Your task to perform on an android device: Find coffee shops on Maps Image 0: 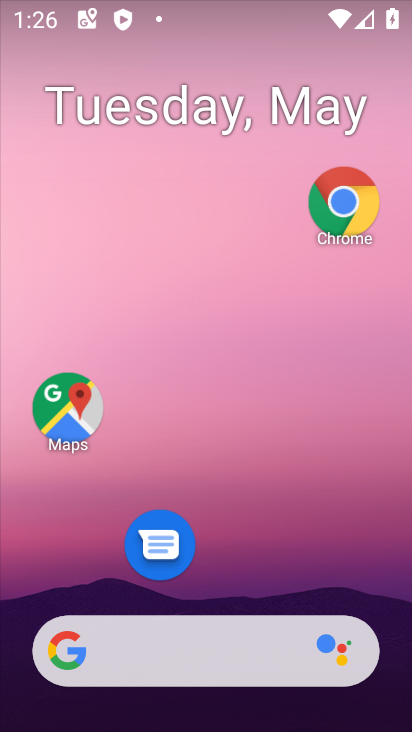
Step 0: click (85, 399)
Your task to perform on an android device: Find coffee shops on Maps Image 1: 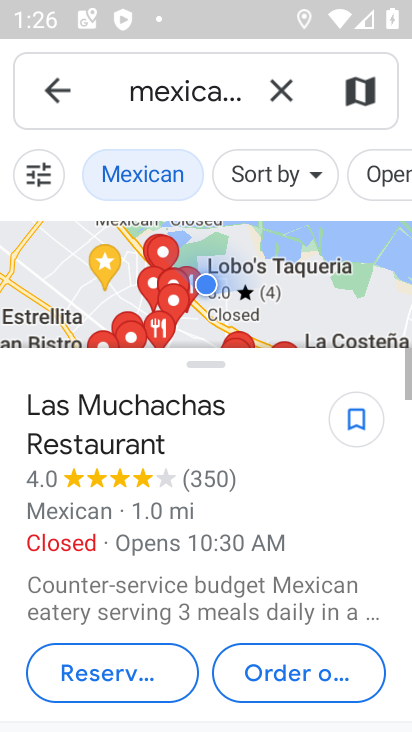
Step 1: click (274, 80)
Your task to perform on an android device: Find coffee shops on Maps Image 2: 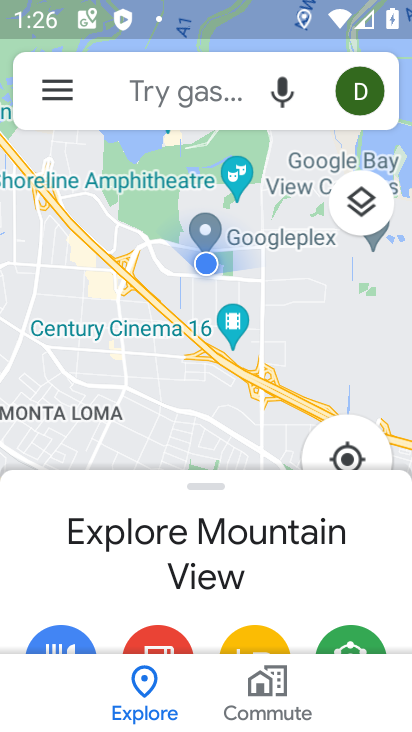
Step 2: click (187, 88)
Your task to perform on an android device: Find coffee shops on Maps Image 3: 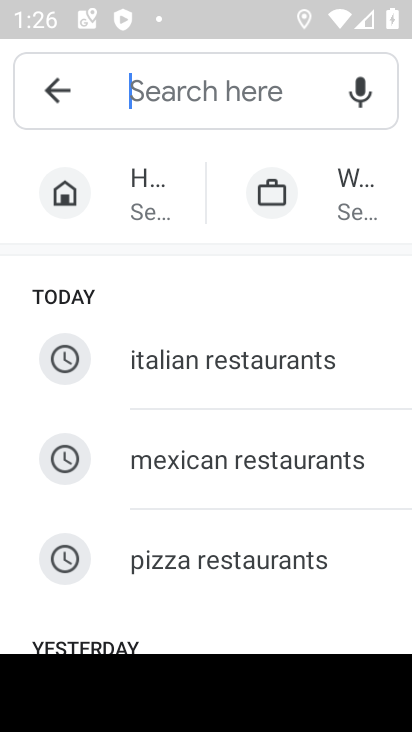
Step 3: drag from (105, 665) to (160, 259)
Your task to perform on an android device: Find coffee shops on Maps Image 4: 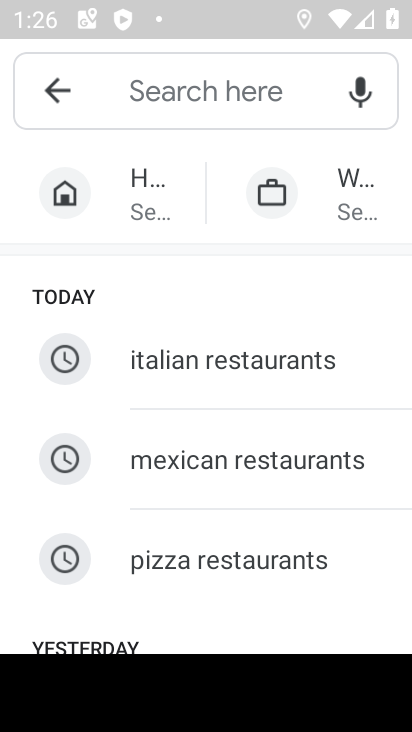
Step 4: drag from (132, 592) to (153, 185)
Your task to perform on an android device: Find coffee shops on Maps Image 5: 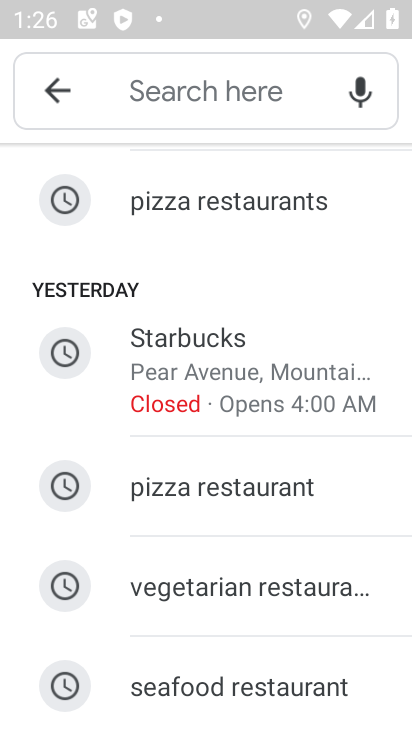
Step 5: drag from (107, 565) to (146, 229)
Your task to perform on an android device: Find coffee shops on Maps Image 6: 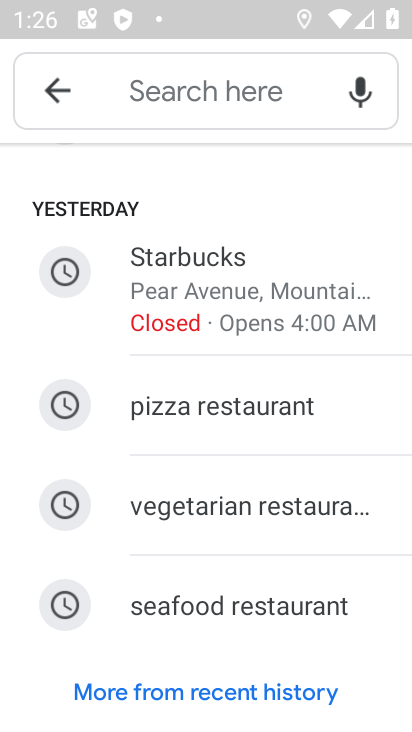
Step 6: drag from (146, 632) to (228, 46)
Your task to perform on an android device: Find coffee shops on Maps Image 7: 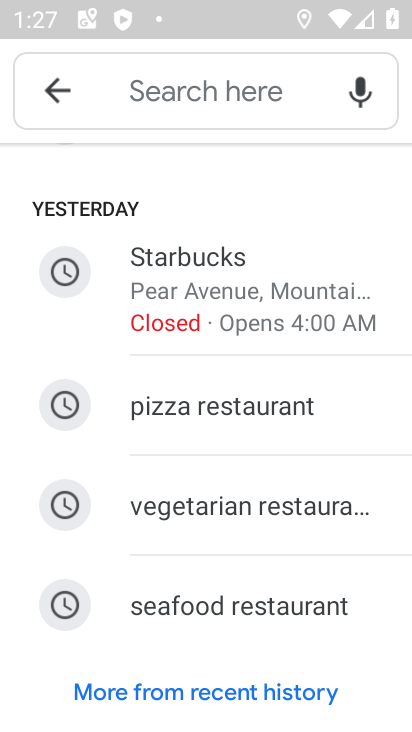
Step 7: click (228, 69)
Your task to perform on an android device: Find coffee shops on Maps Image 8: 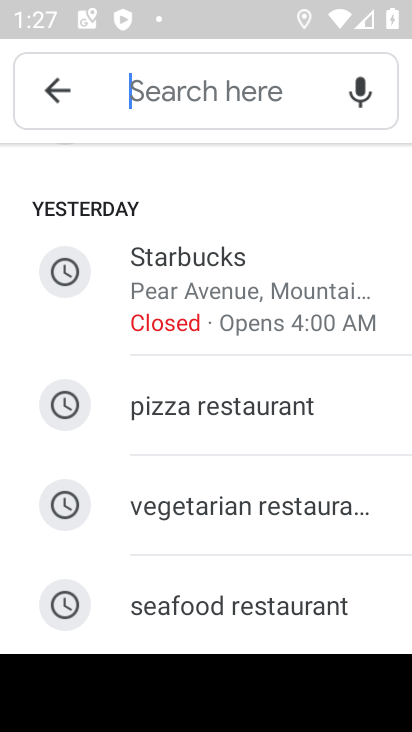
Step 8: type "coffee"
Your task to perform on an android device: Find coffee shops on Maps Image 9: 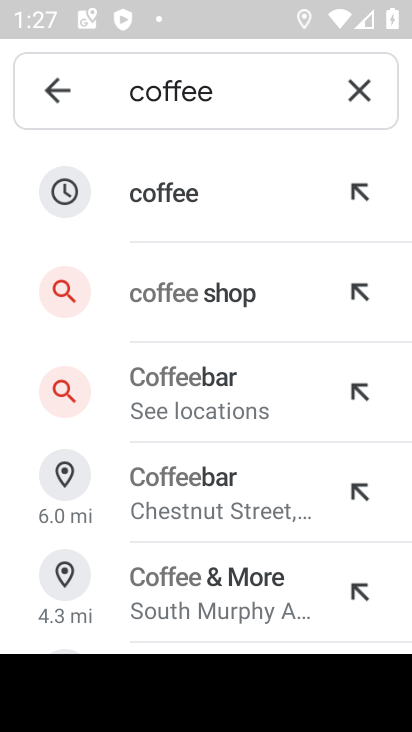
Step 9: click (159, 290)
Your task to perform on an android device: Find coffee shops on Maps Image 10: 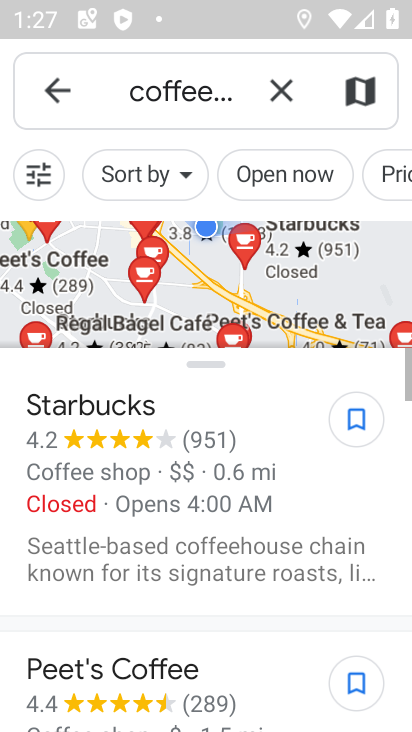
Step 10: task complete